Your task to perform on an android device: Set the phone to "Do not disturb". Image 0: 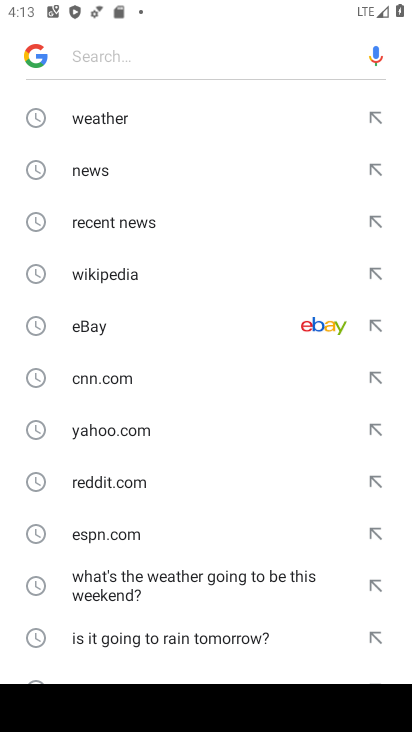
Step 0: press home button
Your task to perform on an android device: Set the phone to "Do not disturb". Image 1: 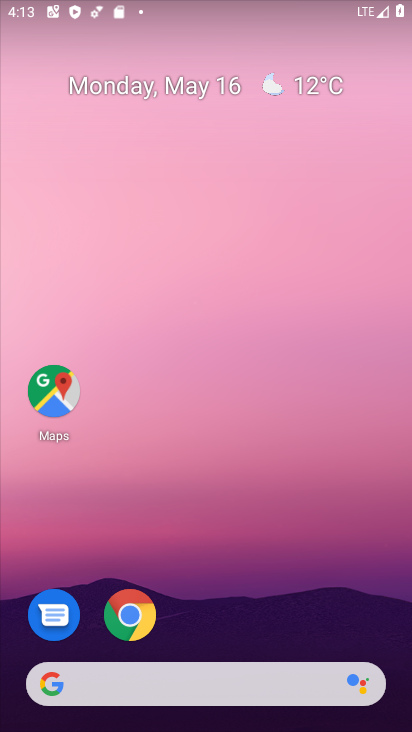
Step 1: drag from (225, 729) to (211, 151)
Your task to perform on an android device: Set the phone to "Do not disturb". Image 2: 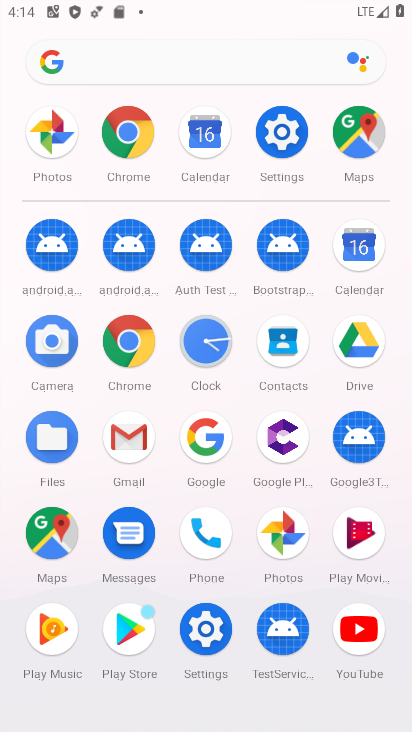
Step 2: click (285, 128)
Your task to perform on an android device: Set the phone to "Do not disturb". Image 3: 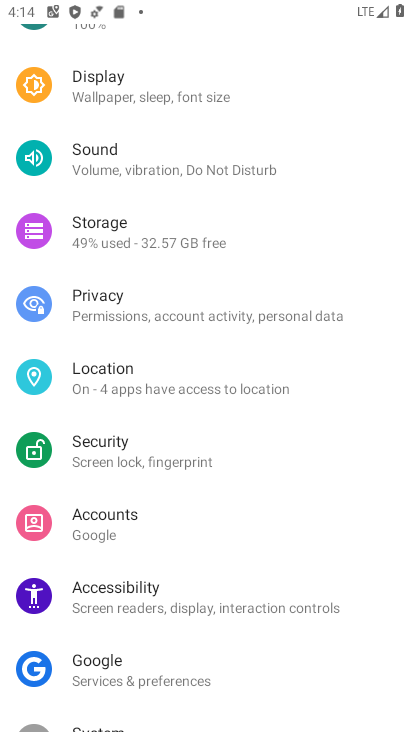
Step 3: click (174, 162)
Your task to perform on an android device: Set the phone to "Do not disturb". Image 4: 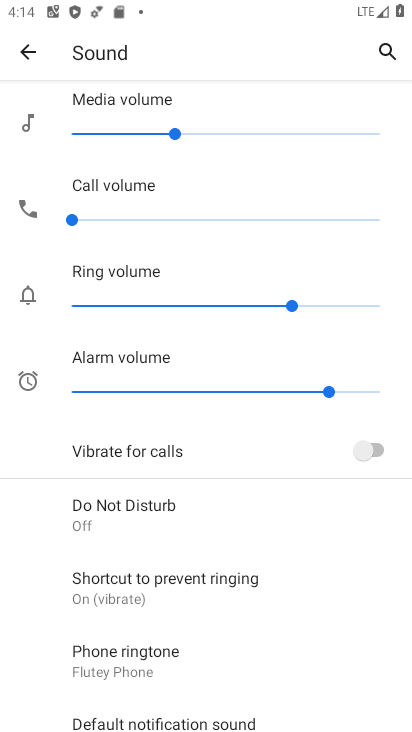
Step 4: click (120, 504)
Your task to perform on an android device: Set the phone to "Do not disturb". Image 5: 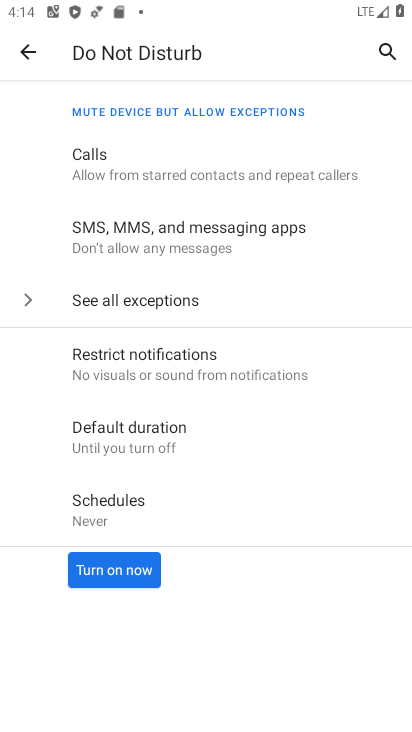
Step 5: click (112, 572)
Your task to perform on an android device: Set the phone to "Do not disturb". Image 6: 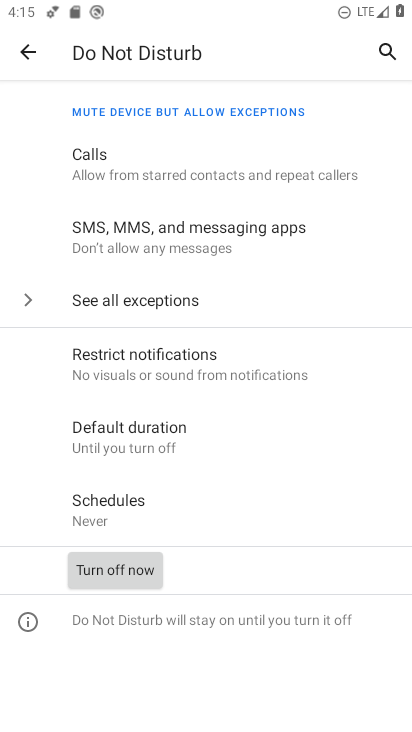
Step 6: task complete